Your task to perform on an android device: Open Android settings Image 0: 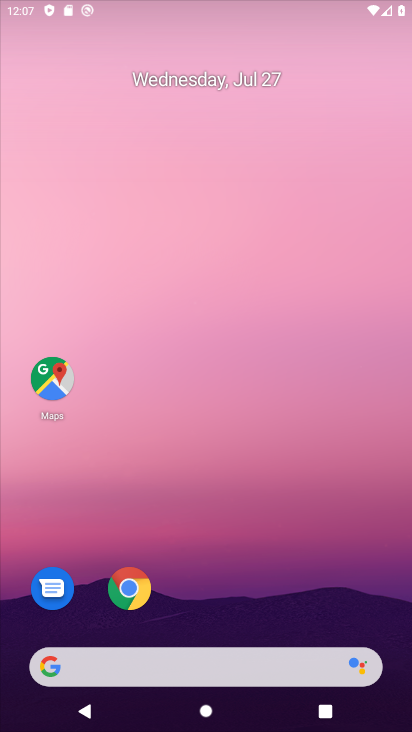
Step 0: drag from (50, 692) to (186, 53)
Your task to perform on an android device: Open Android settings Image 1: 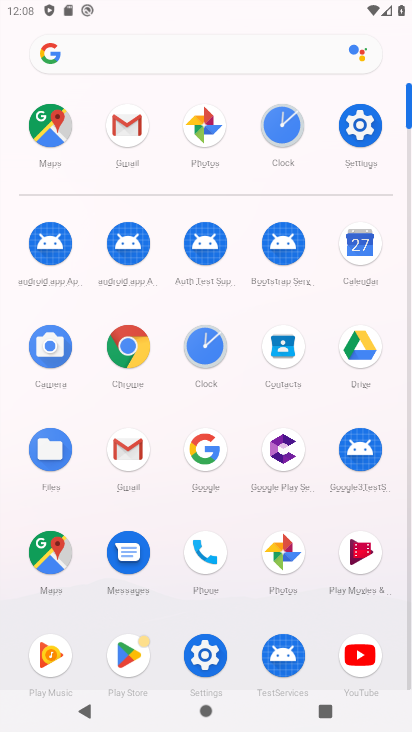
Step 1: click (197, 651)
Your task to perform on an android device: Open Android settings Image 2: 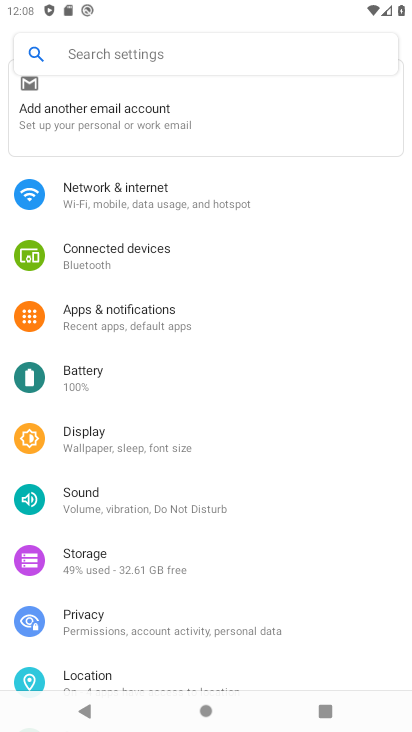
Step 2: drag from (326, 647) to (373, 182)
Your task to perform on an android device: Open Android settings Image 3: 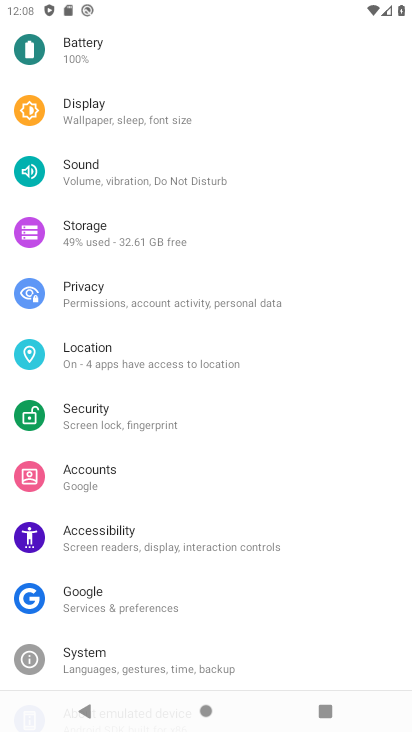
Step 3: drag from (341, 653) to (313, 306)
Your task to perform on an android device: Open Android settings Image 4: 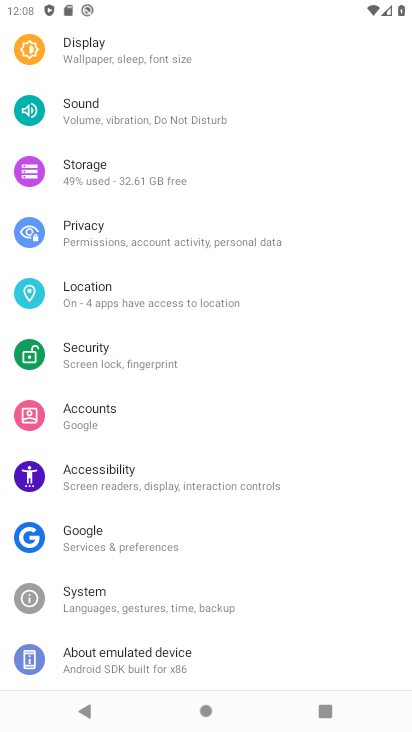
Step 4: click (68, 662)
Your task to perform on an android device: Open Android settings Image 5: 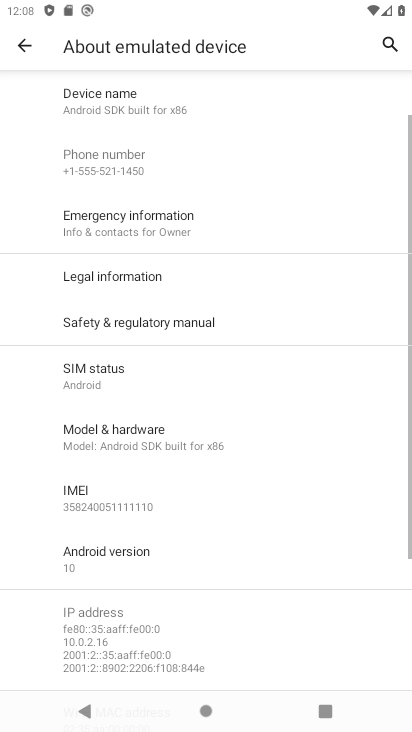
Step 5: click (119, 562)
Your task to perform on an android device: Open Android settings Image 6: 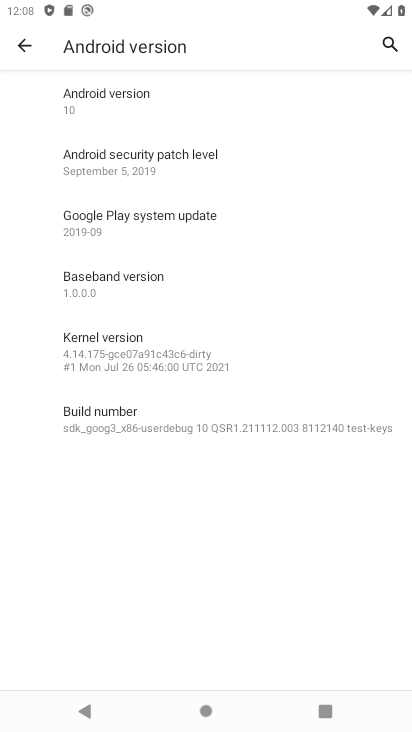
Step 6: task complete